Your task to perform on an android device: Open Google Chrome and open the bookmarks view Image 0: 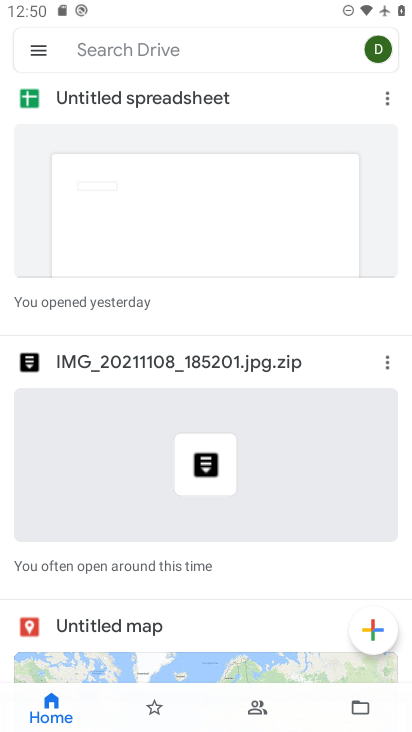
Step 0: press back button
Your task to perform on an android device: Open Google Chrome and open the bookmarks view Image 1: 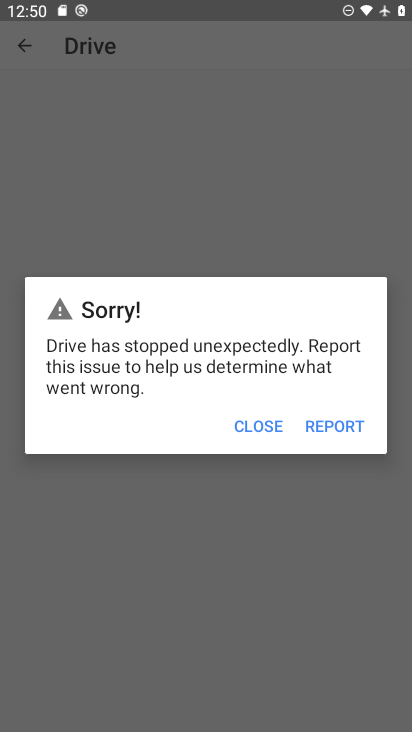
Step 1: click (264, 428)
Your task to perform on an android device: Open Google Chrome and open the bookmarks view Image 2: 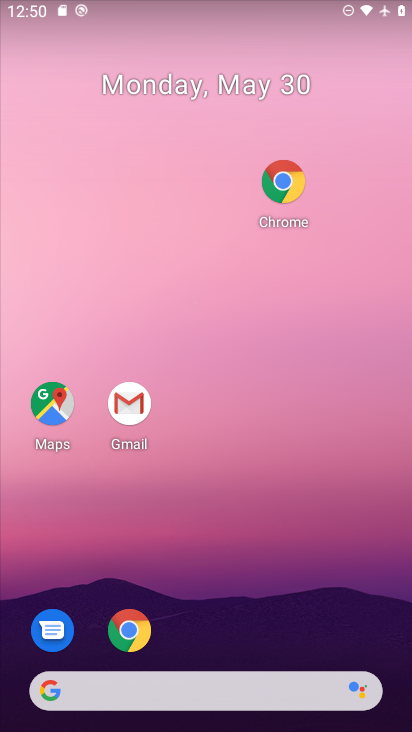
Step 2: drag from (265, 676) to (185, 112)
Your task to perform on an android device: Open Google Chrome and open the bookmarks view Image 3: 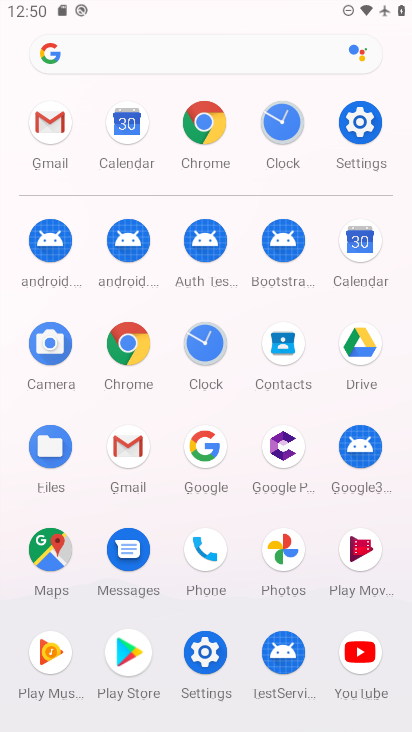
Step 3: click (191, 116)
Your task to perform on an android device: Open Google Chrome and open the bookmarks view Image 4: 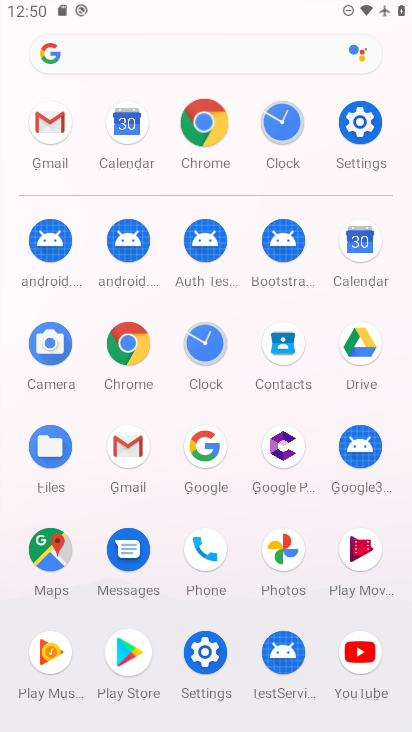
Step 4: click (202, 115)
Your task to perform on an android device: Open Google Chrome and open the bookmarks view Image 5: 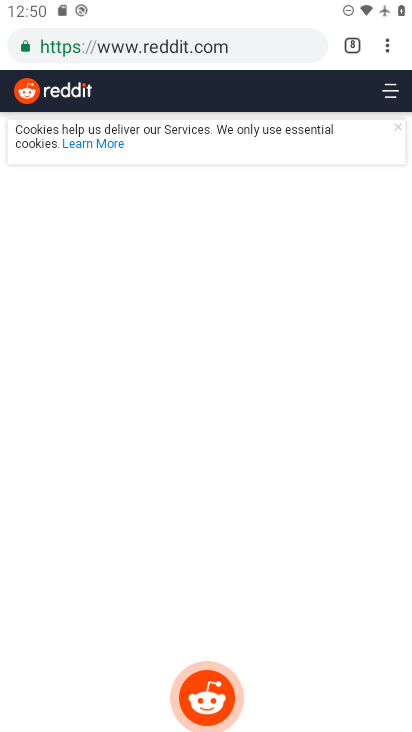
Step 5: drag from (386, 43) to (275, 180)
Your task to perform on an android device: Open Google Chrome and open the bookmarks view Image 6: 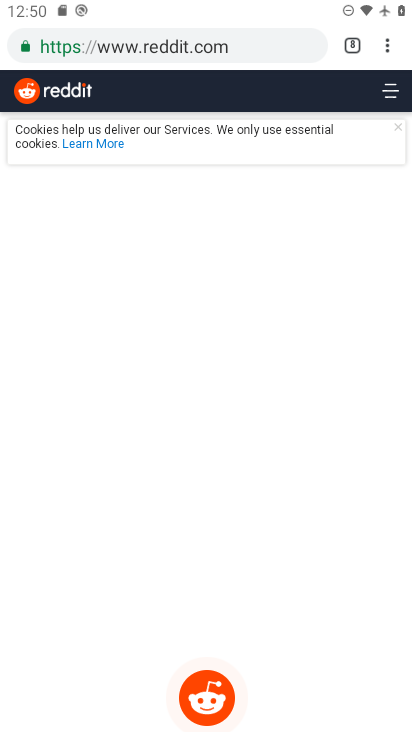
Step 6: click (281, 176)
Your task to perform on an android device: Open Google Chrome and open the bookmarks view Image 7: 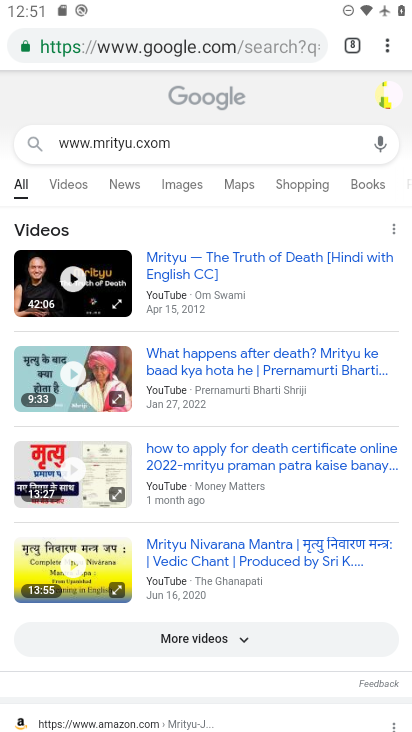
Step 7: drag from (387, 52) to (248, 179)
Your task to perform on an android device: Open Google Chrome and open the bookmarks view Image 8: 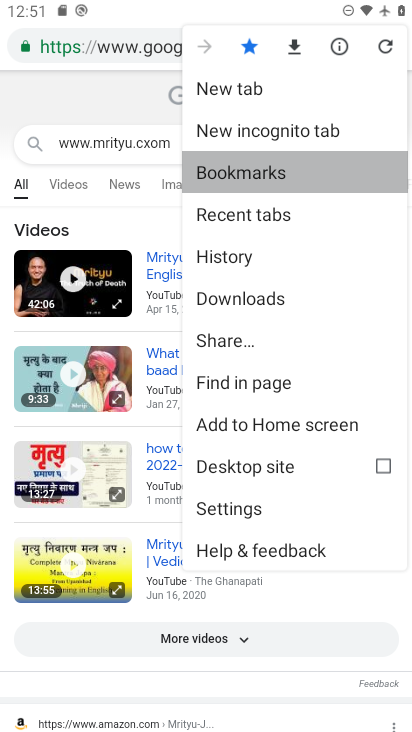
Step 8: click (248, 179)
Your task to perform on an android device: Open Google Chrome and open the bookmarks view Image 9: 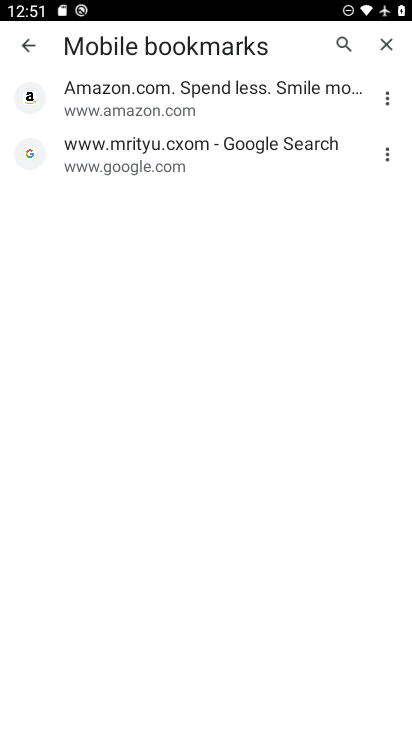
Step 9: task complete